Your task to perform on an android device: Go to Amazon Image 0: 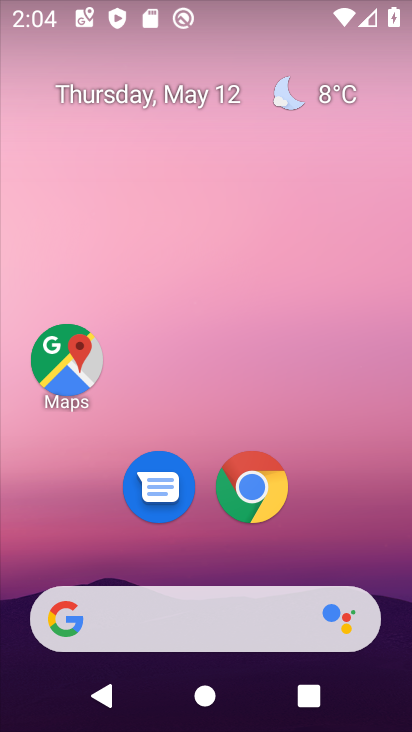
Step 0: click (264, 490)
Your task to perform on an android device: Go to Amazon Image 1: 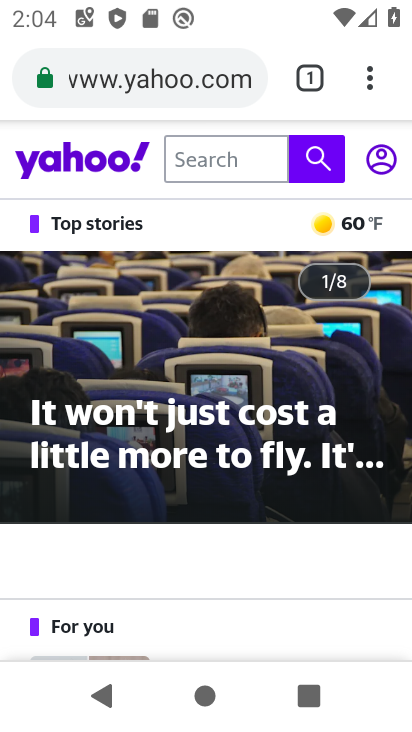
Step 1: click (156, 86)
Your task to perform on an android device: Go to Amazon Image 2: 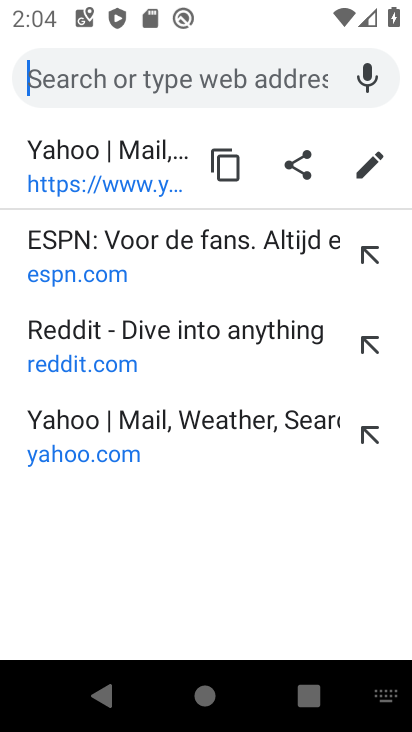
Step 2: type "amazon"
Your task to perform on an android device: Go to Amazon Image 3: 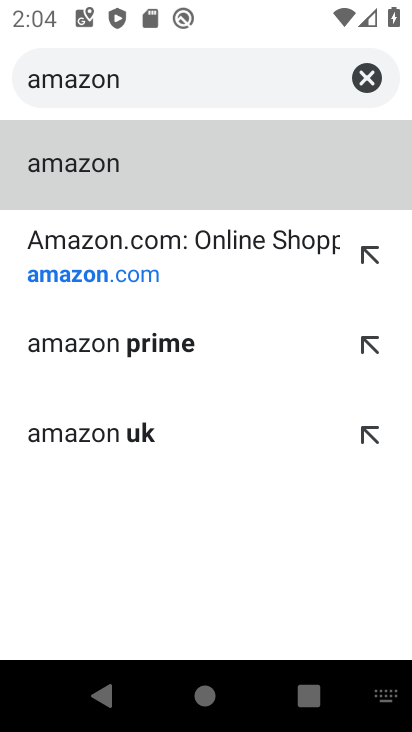
Step 3: click (257, 156)
Your task to perform on an android device: Go to Amazon Image 4: 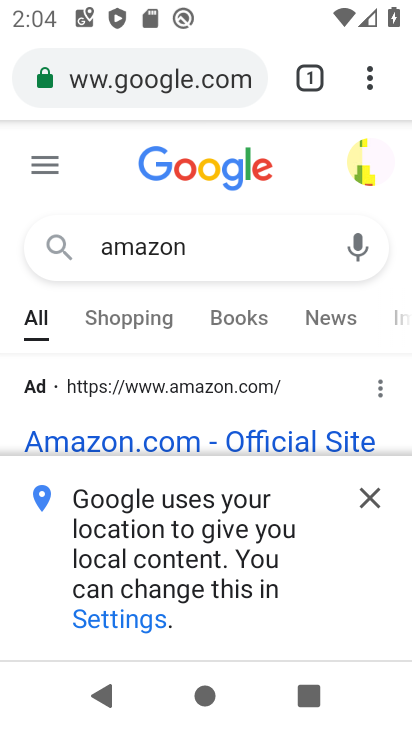
Step 4: click (75, 433)
Your task to perform on an android device: Go to Amazon Image 5: 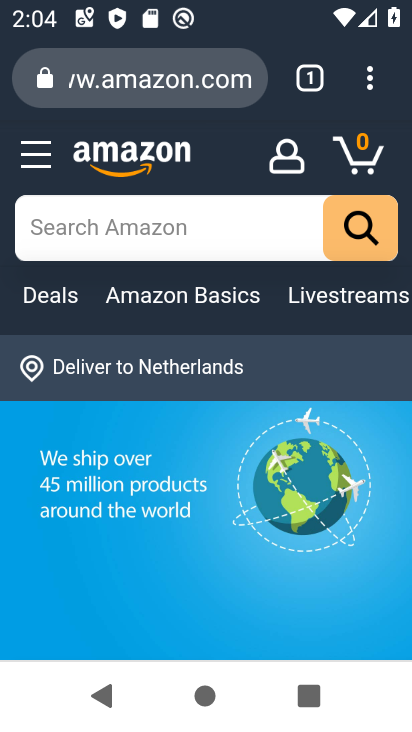
Step 5: task complete